Your task to perform on an android device: check out phone information Image 0: 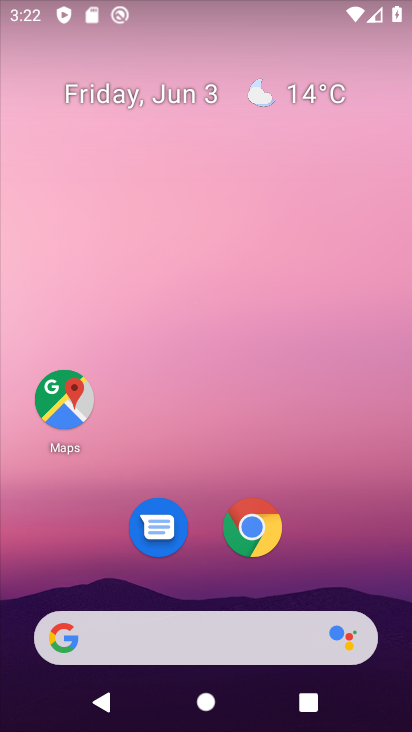
Step 0: drag from (340, 528) to (214, 19)
Your task to perform on an android device: check out phone information Image 1: 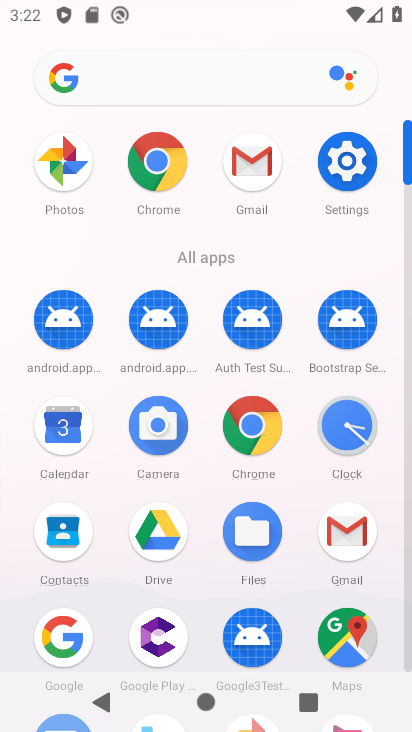
Step 1: click (347, 161)
Your task to perform on an android device: check out phone information Image 2: 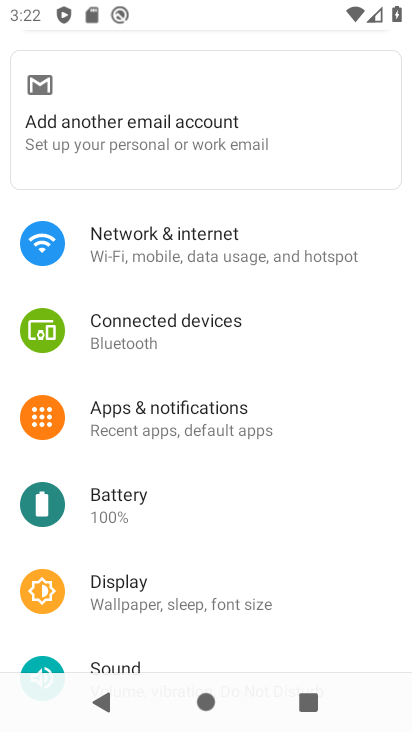
Step 2: drag from (174, 489) to (196, 389)
Your task to perform on an android device: check out phone information Image 3: 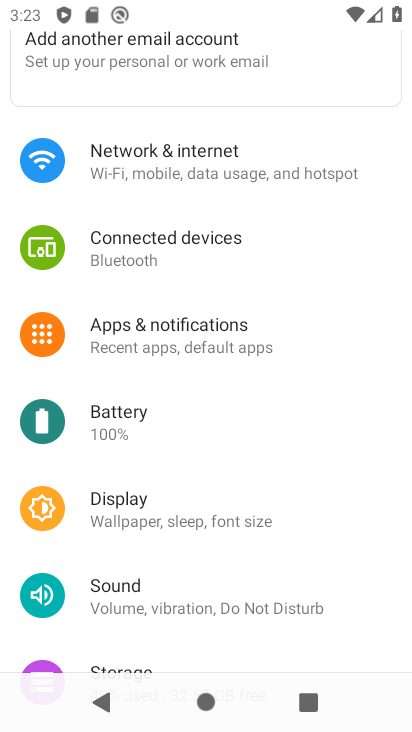
Step 3: drag from (165, 461) to (206, 307)
Your task to perform on an android device: check out phone information Image 4: 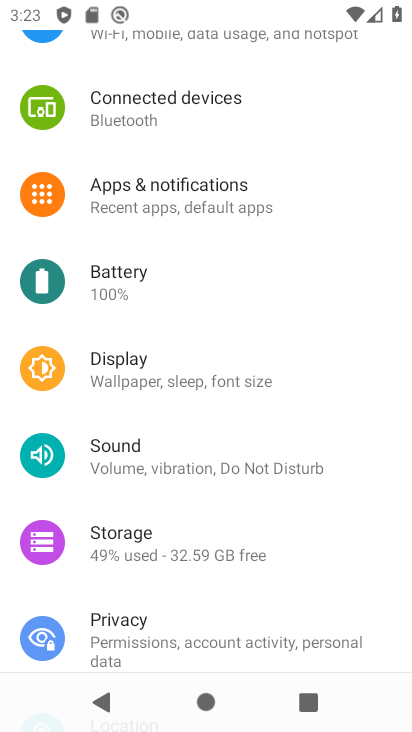
Step 4: drag from (161, 419) to (193, 216)
Your task to perform on an android device: check out phone information Image 5: 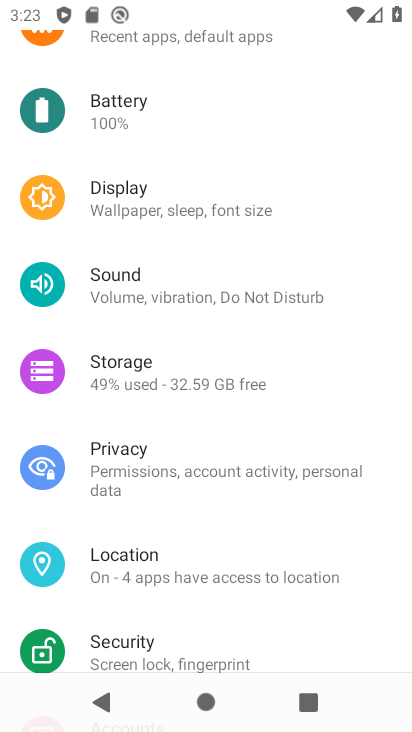
Step 5: drag from (144, 514) to (284, 213)
Your task to perform on an android device: check out phone information Image 6: 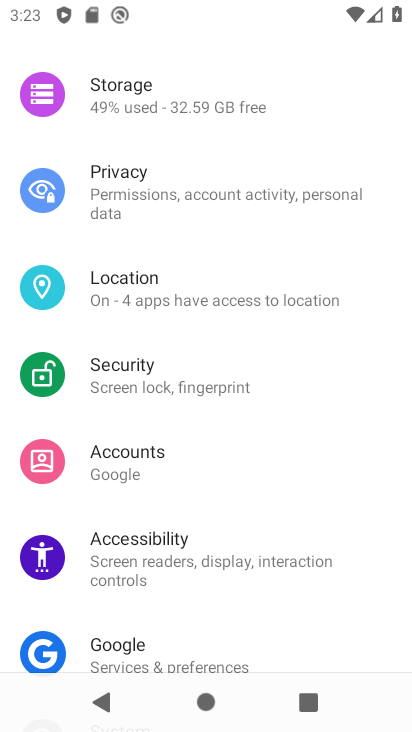
Step 6: drag from (163, 448) to (258, 110)
Your task to perform on an android device: check out phone information Image 7: 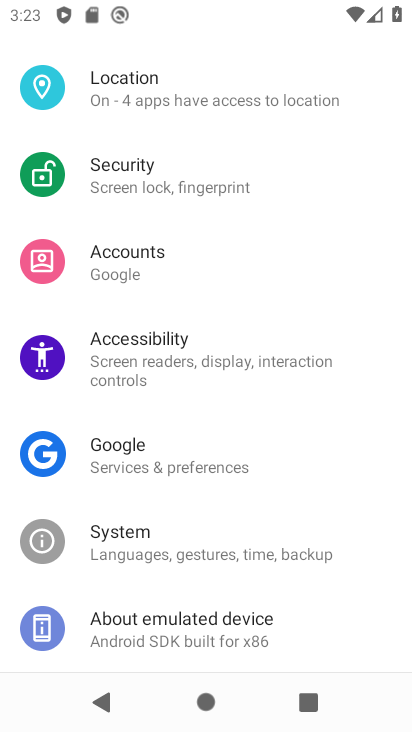
Step 7: drag from (145, 505) to (262, 129)
Your task to perform on an android device: check out phone information Image 8: 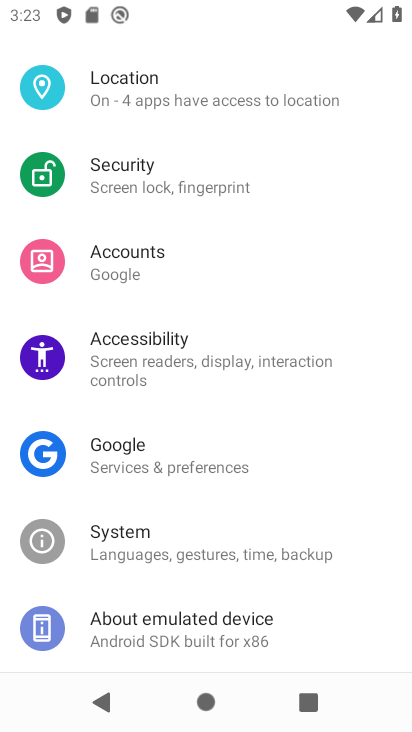
Step 8: click (211, 618)
Your task to perform on an android device: check out phone information Image 9: 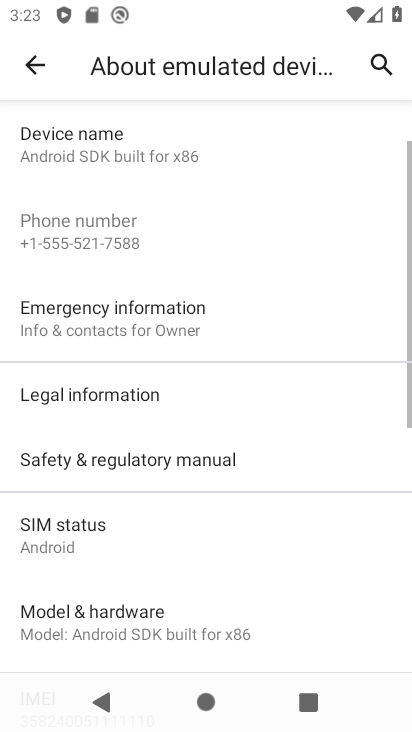
Step 9: task complete